Your task to perform on an android device: Open maps Image 0: 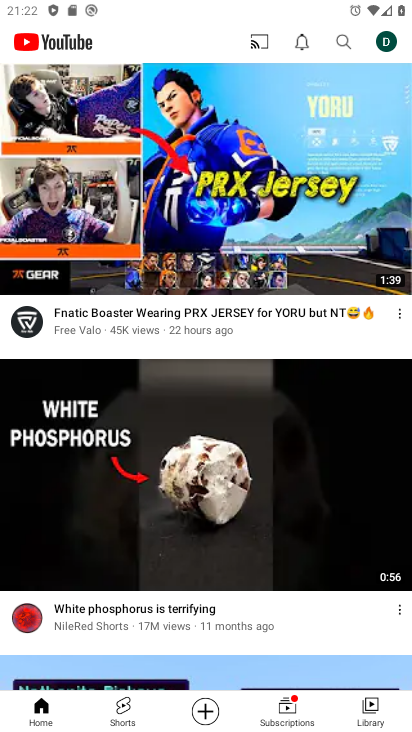
Step 0: press home button
Your task to perform on an android device: Open maps Image 1: 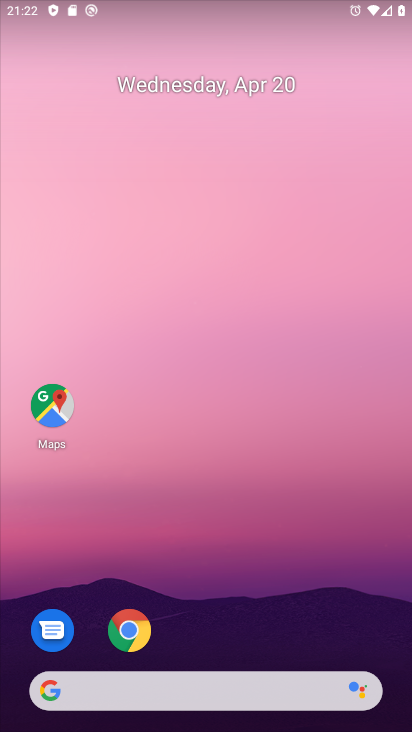
Step 1: click (55, 402)
Your task to perform on an android device: Open maps Image 2: 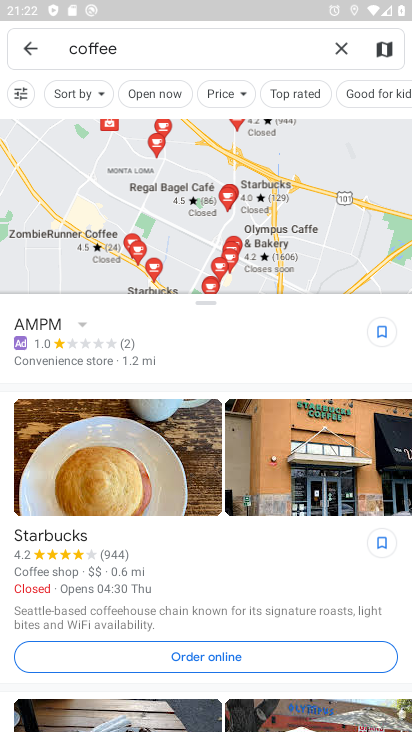
Step 2: task complete